Your task to perform on an android device: find photos in the google photos app Image 0: 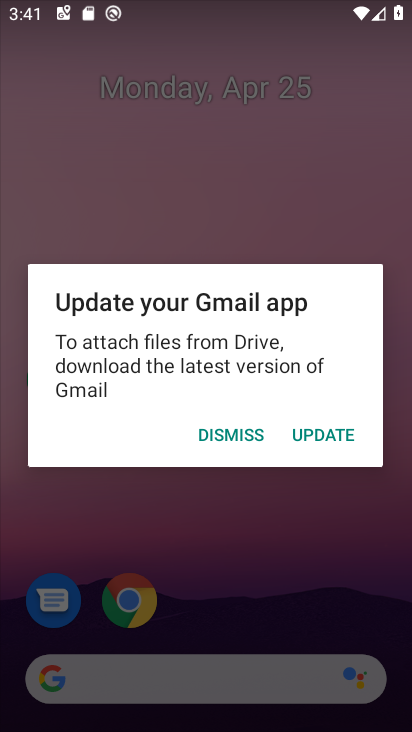
Step 0: click (240, 429)
Your task to perform on an android device: find photos in the google photos app Image 1: 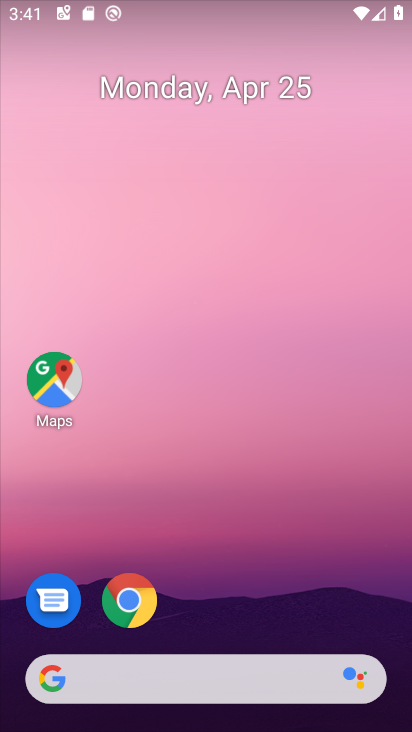
Step 1: drag from (206, 641) to (263, 173)
Your task to perform on an android device: find photos in the google photos app Image 2: 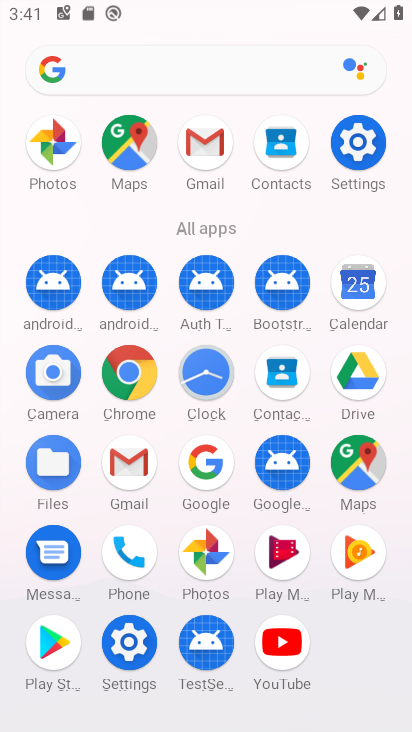
Step 2: click (206, 544)
Your task to perform on an android device: find photos in the google photos app Image 3: 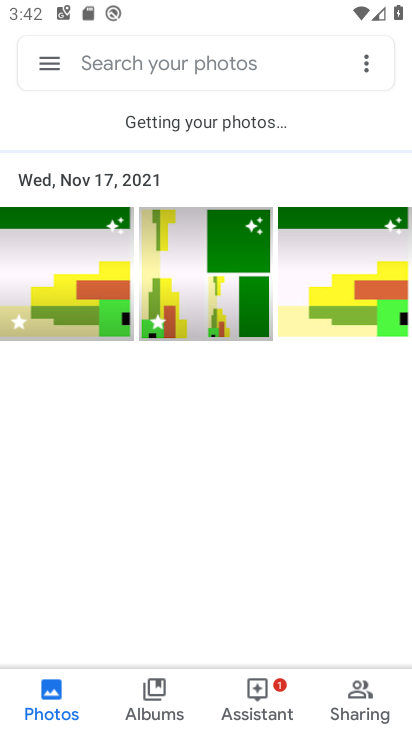
Step 3: task complete